Your task to perform on an android device: open the mobile data screen to see how much data has been used Image 0: 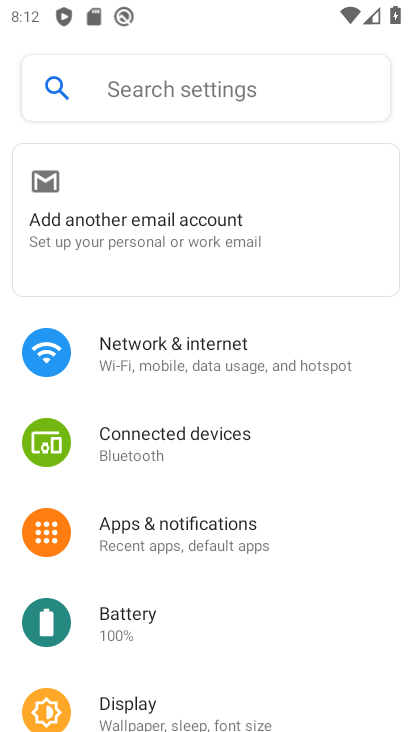
Step 0: click (166, 354)
Your task to perform on an android device: open the mobile data screen to see how much data has been used Image 1: 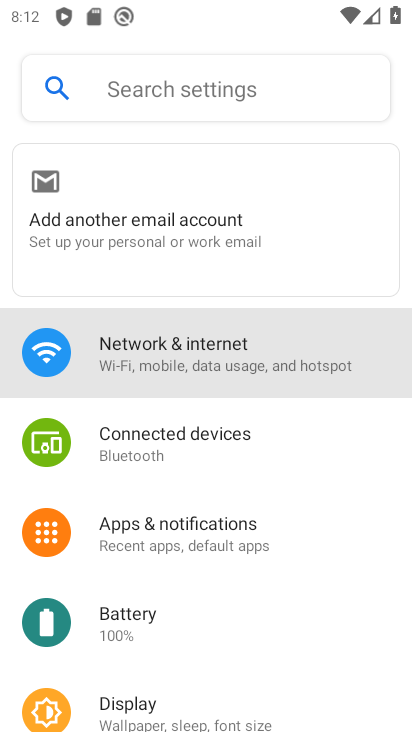
Step 1: click (166, 353)
Your task to perform on an android device: open the mobile data screen to see how much data has been used Image 2: 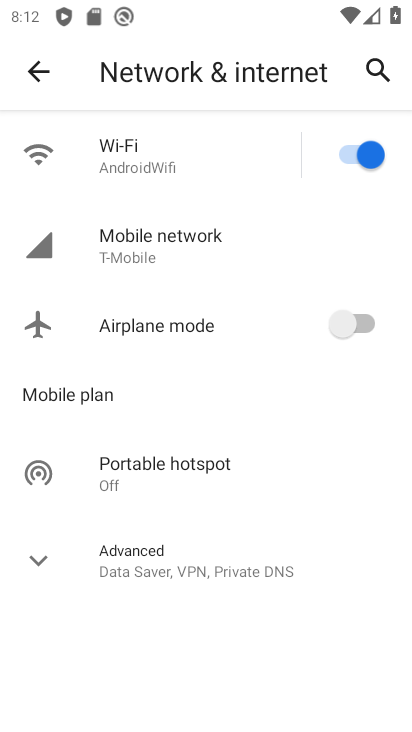
Step 2: task complete